Your task to perform on an android device: toggle airplane mode Image 0: 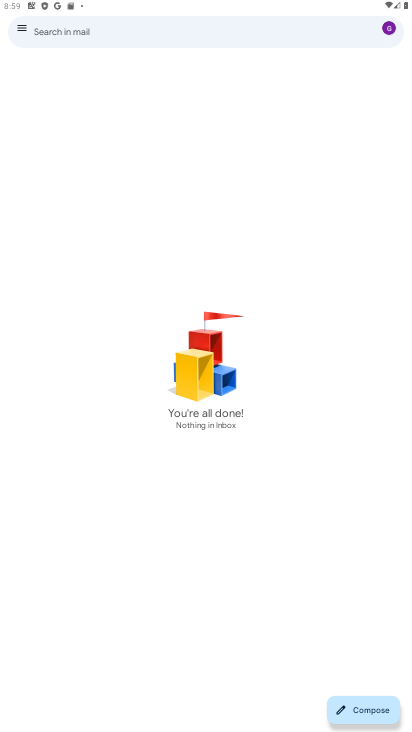
Step 0: task complete